Your task to perform on an android device: Open Youtube and go to "Your channel" Image 0: 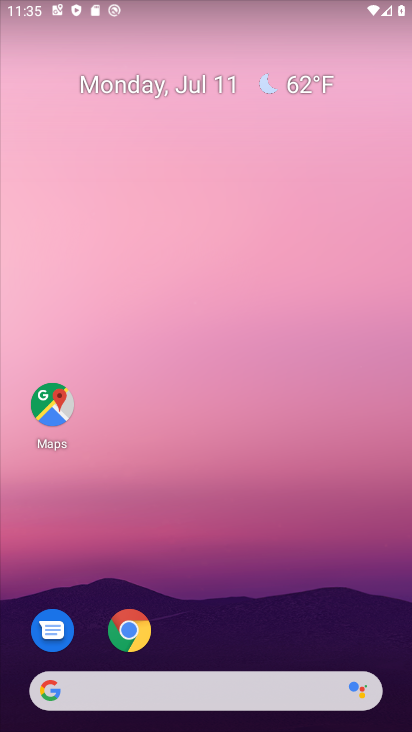
Step 0: drag from (265, 654) to (283, 28)
Your task to perform on an android device: Open Youtube and go to "Your channel" Image 1: 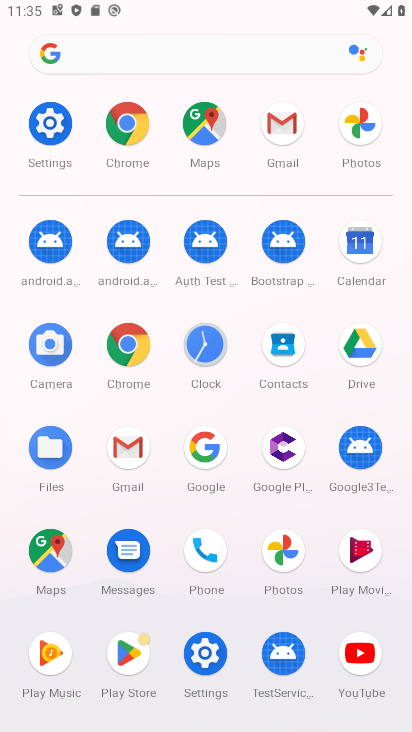
Step 1: click (368, 657)
Your task to perform on an android device: Open Youtube and go to "Your channel" Image 2: 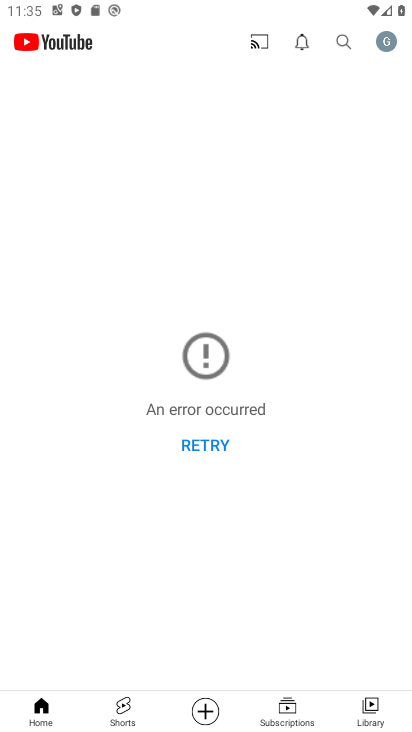
Step 2: click (387, 36)
Your task to perform on an android device: Open Youtube and go to "Your channel" Image 3: 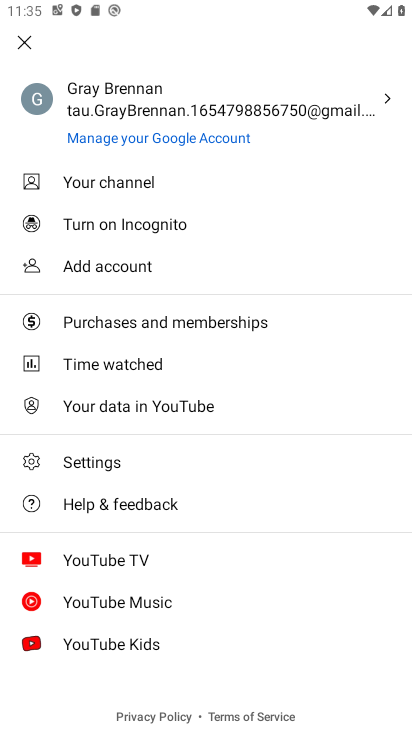
Step 3: click (162, 176)
Your task to perform on an android device: Open Youtube and go to "Your channel" Image 4: 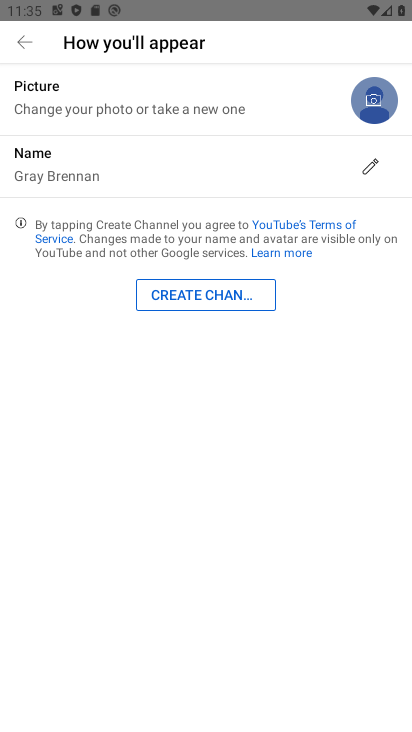
Step 4: task complete